Your task to perform on an android device: change the clock style Image 0: 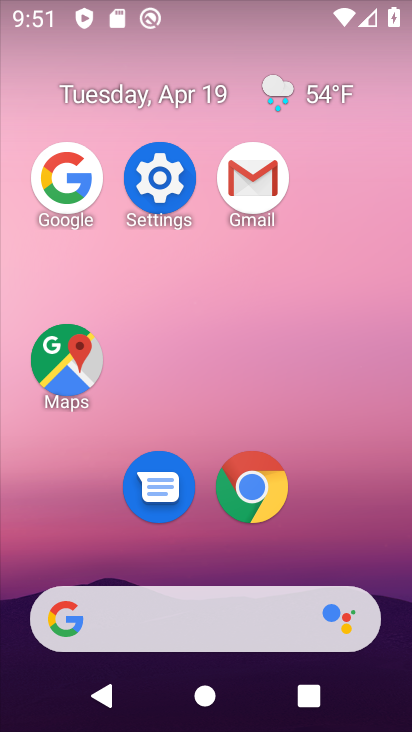
Step 0: drag from (256, 573) to (284, 38)
Your task to perform on an android device: change the clock style Image 1: 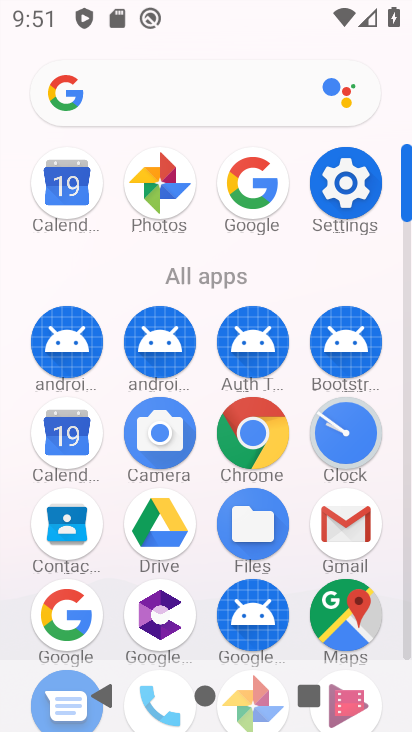
Step 1: drag from (337, 424) to (245, 296)
Your task to perform on an android device: change the clock style Image 2: 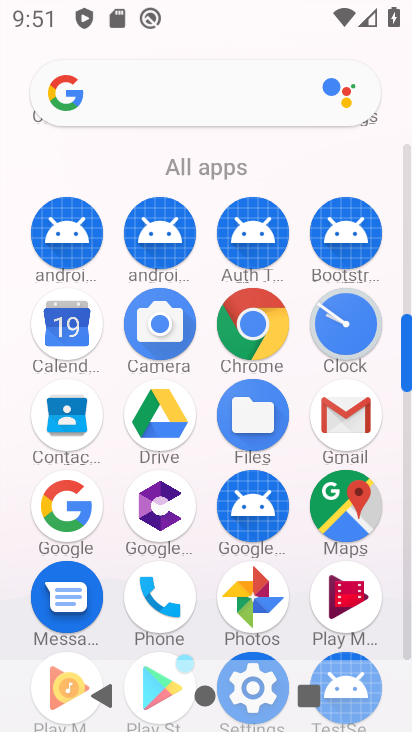
Step 2: drag from (344, 338) to (202, 307)
Your task to perform on an android device: change the clock style Image 3: 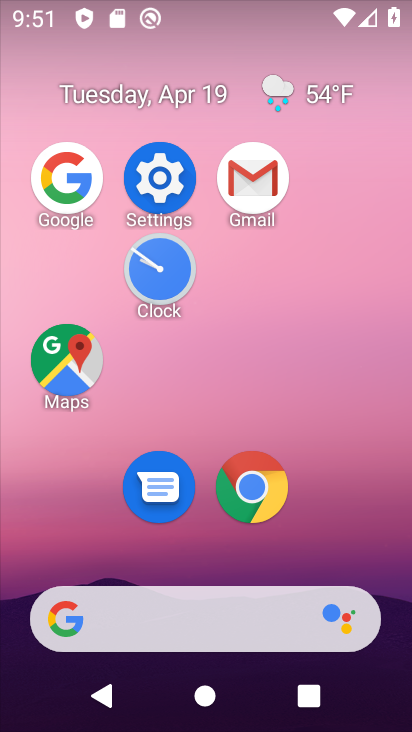
Step 3: click (163, 273)
Your task to perform on an android device: change the clock style Image 4: 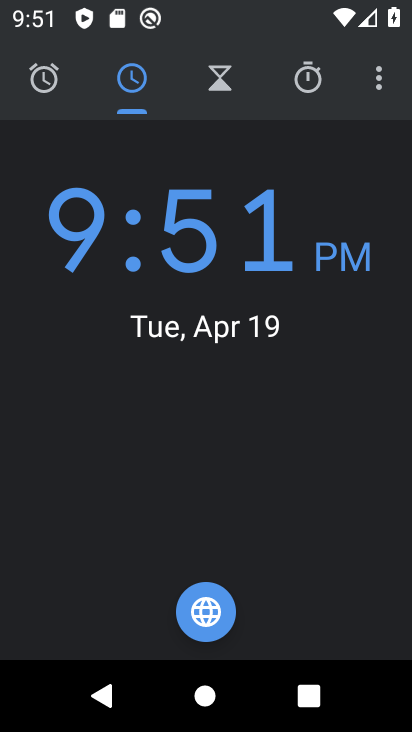
Step 4: click (380, 76)
Your task to perform on an android device: change the clock style Image 5: 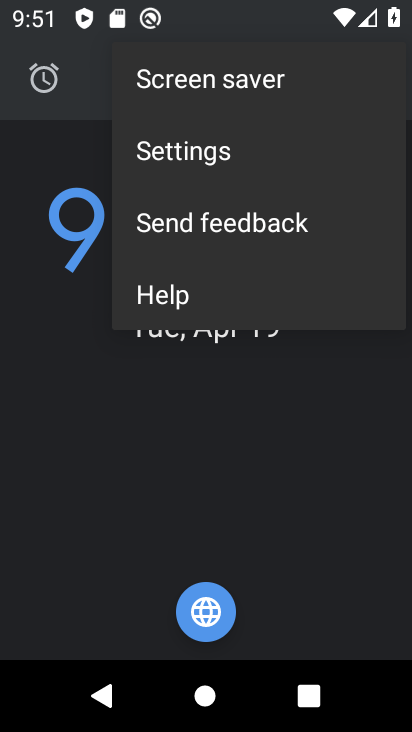
Step 5: click (187, 166)
Your task to perform on an android device: change the clock style Image 6: 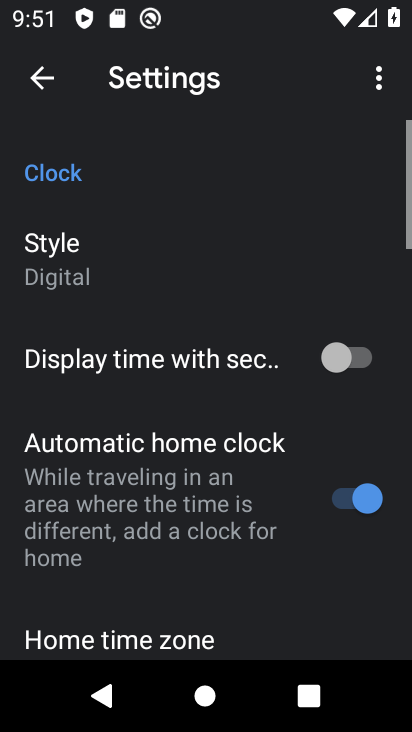
Step 6: click (106, 240)
Your task to perform on an android device: change the clock style Image 7: 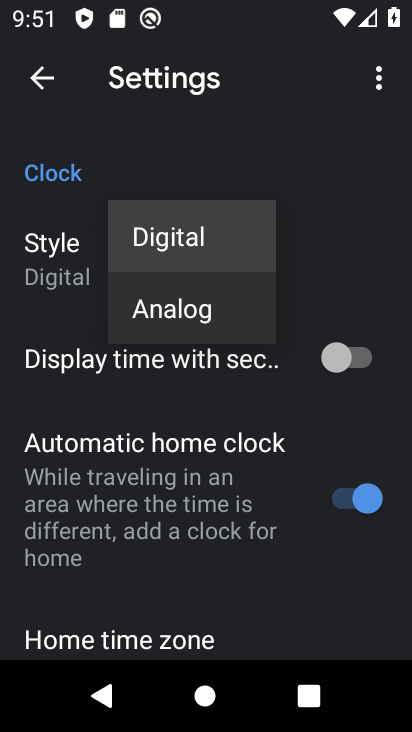
Step 7: click (195, 303)
Your task to perform on an android device: change the clock style Image 8: 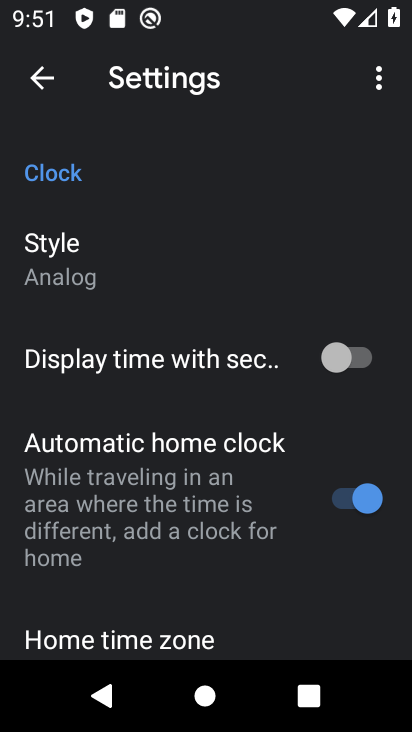
Step 8: task complete